Your task to perform on an android device: change keyboard looks Image 0: 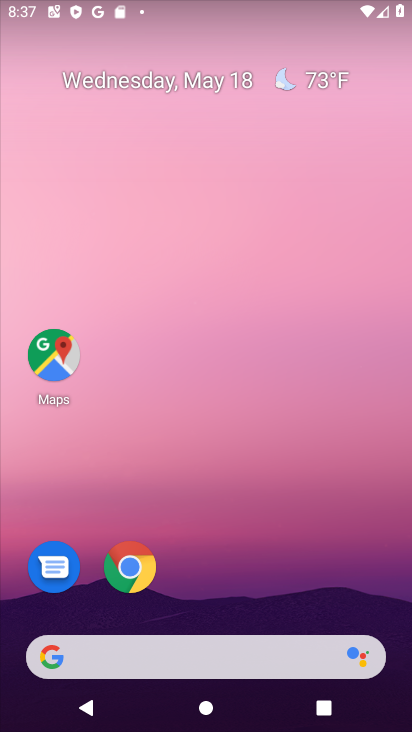
Step 0: drag from (232, 84) to (232, 27)
Your task to perform on an android device: change keyboard looks Image 1: 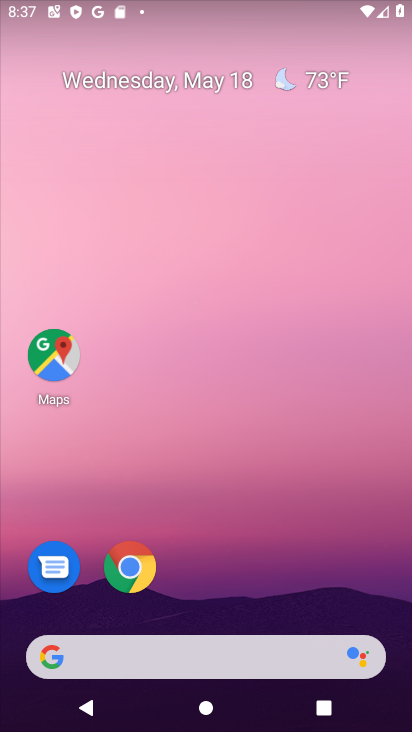
Step 1: drag from (262, 526) to (215, 16)
Your task to perform on an android device: change keyboard looks Image 2: 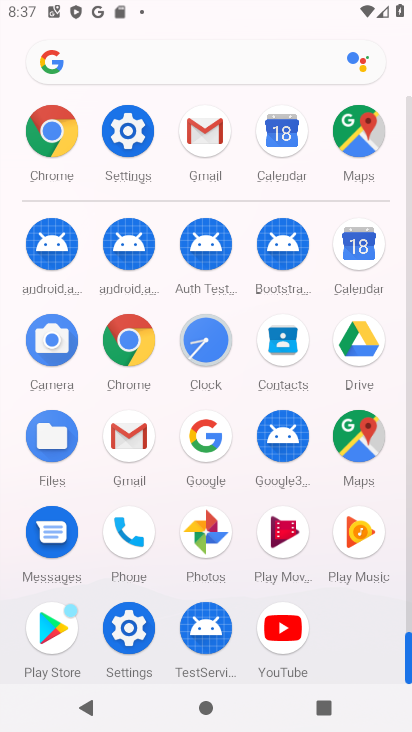
Step 2: click (129, 628)
Your task to perform on an android device: change keyboard looks Image 3: 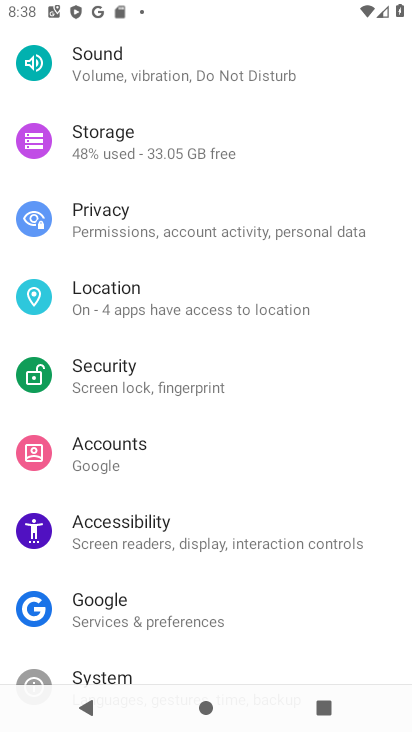
Step 3: drag from (249, 591) to (245, 146)
Your task to perform on an android device: change keyboard looks Image 4: 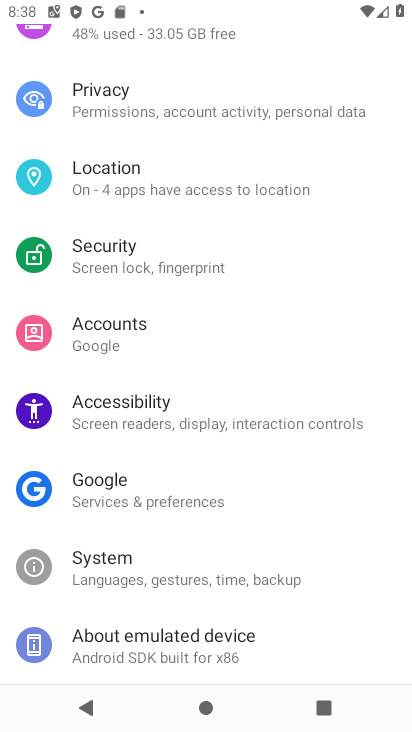
Step 4: drag from (252, 567) to (252, 212)
Your task to perform on an android device: change keyboard looks Image 5: 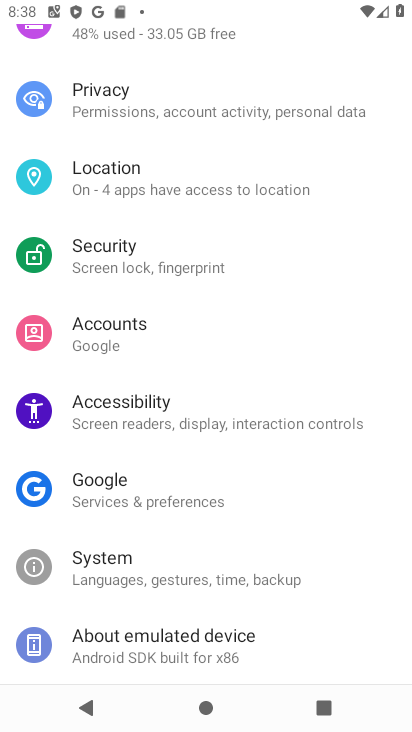
Step 5: click (167, 576)
Your task to perform on an android device: change keyboard looks Image 6: 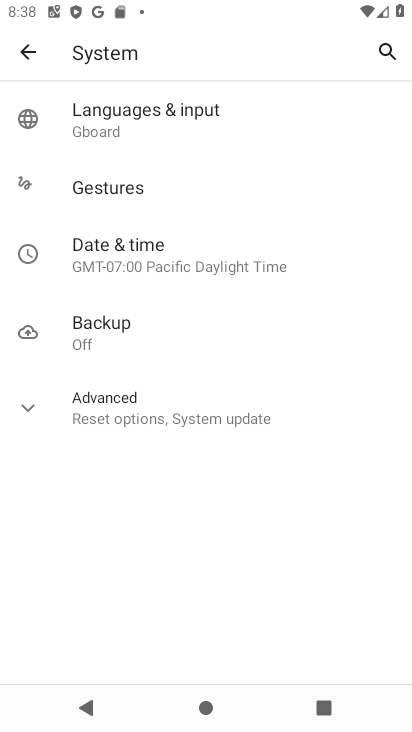
Step 6: click (200, 110)
Your task to perform on an android device: change keyboard looks Image 7: 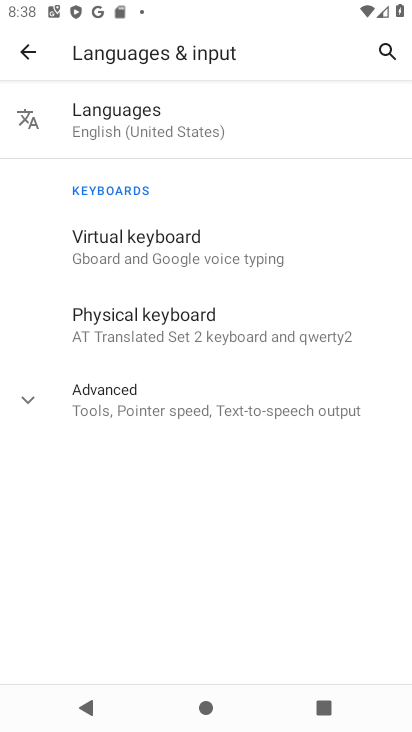
Step 7: click (219, 257)
Your task to perform on an android device: change keyboard looks Image 8: 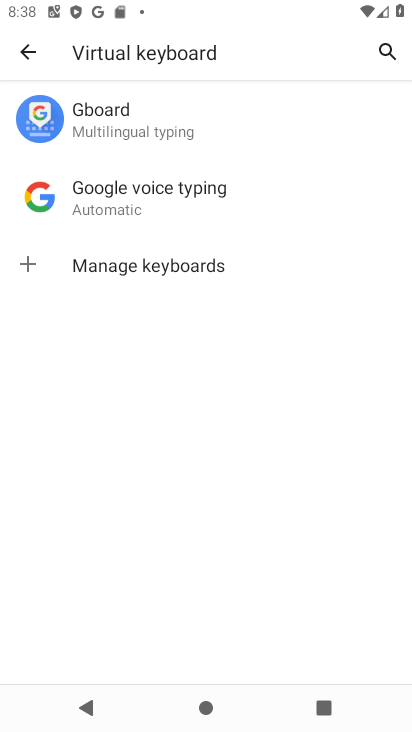
Step 8: click (197, 114)
Your task to perform on an android device: change keyboard looks Image 9: 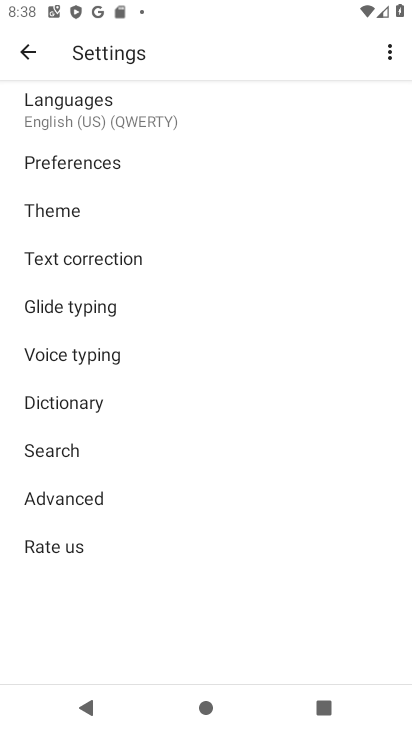
Step 9: click (107, 220)
Your task to perform on an android device: change keyboard looks Image 10: 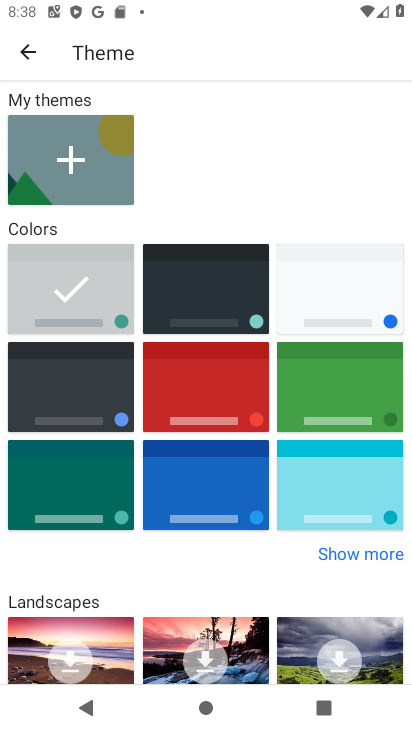
Step 10: click (308, 307)
Your task to perform on an android device: change keyboard looks Image 11: 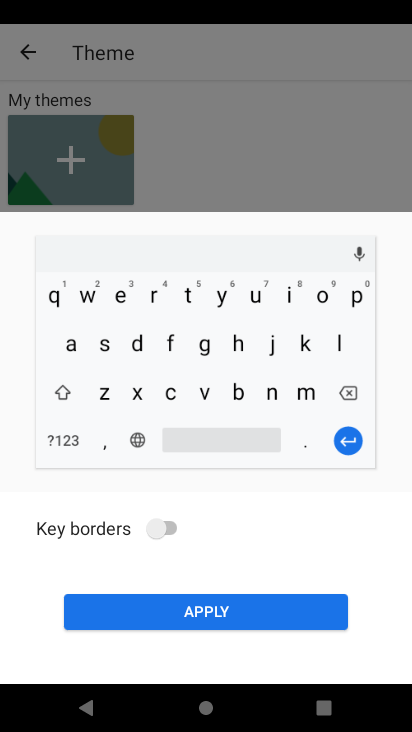
Step 11: click (252, 611)
Your task to perform on an android device: change keyboard looks Image 12: 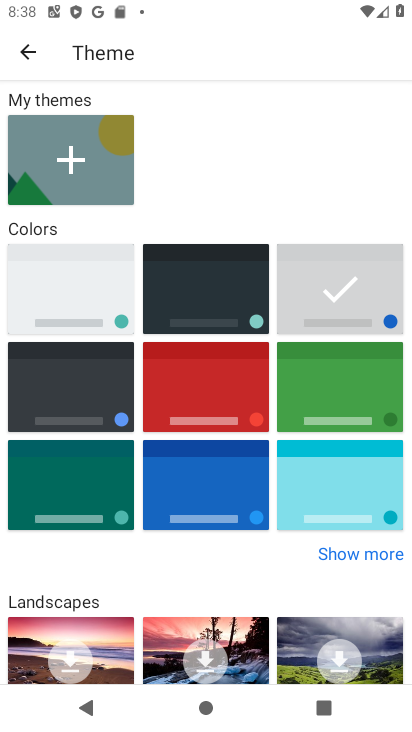
Step 12: task complete